Your task to perform on an android device: Open location settings Image 0: 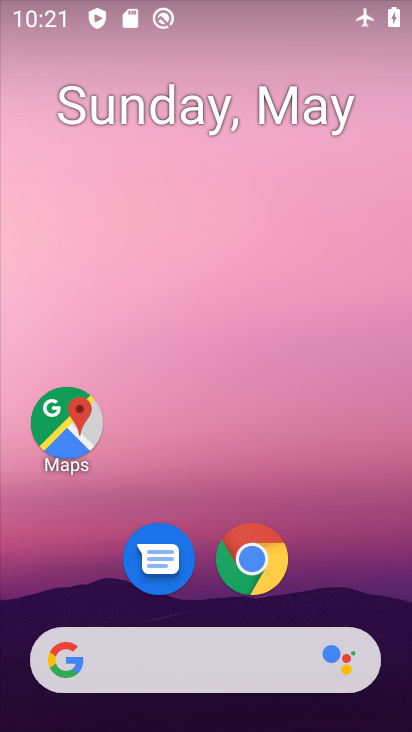
Step 0: drag from (361, 585) to (288, 18)
Your task to perform on an android device: Open location settings Image 1: 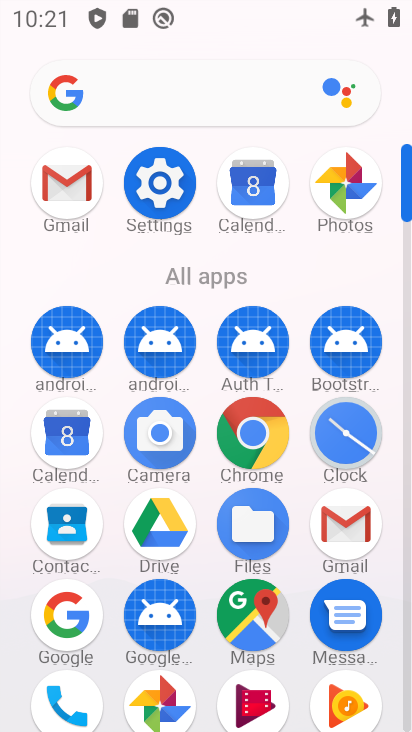
Step 1: click (134, 171)
Your task to perform on an android device: Open location settings Image 2: 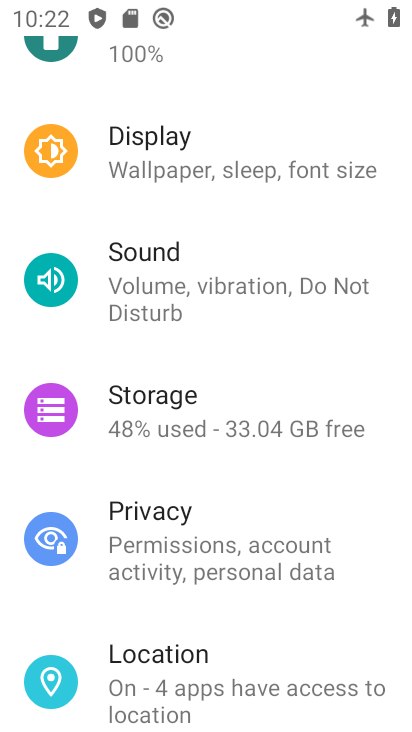
Step 2: click (225, 675)
Your task to perform on an android device: Open location settings Image 3: 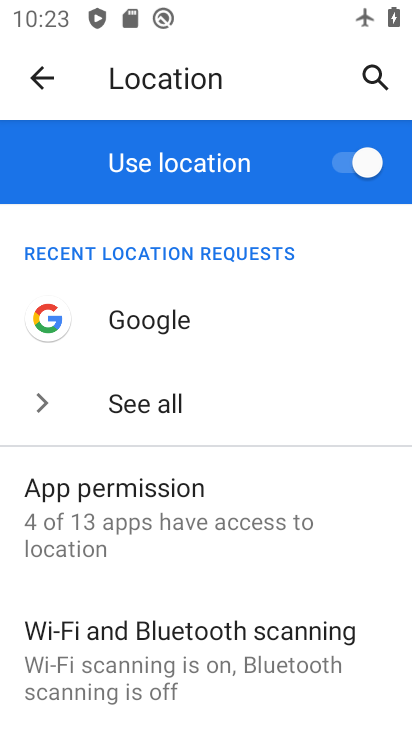
Step 3: task complete